Your task to perform on an android device: open a bookmark in the chrome app Image 0: 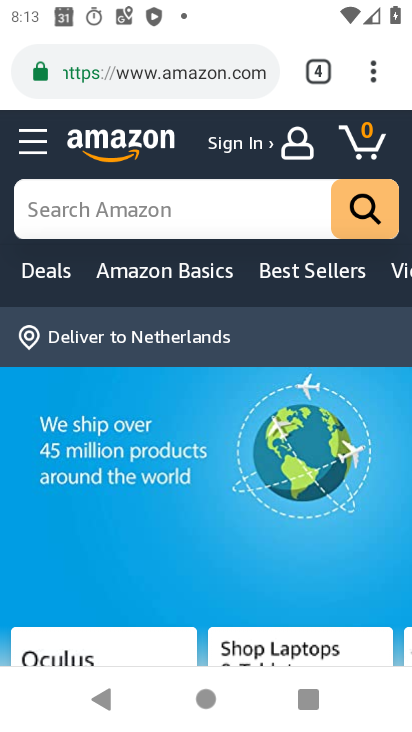
Step 0: press home button
Your task to perform on an android device: open a bookmark in the chrome app Image 1: 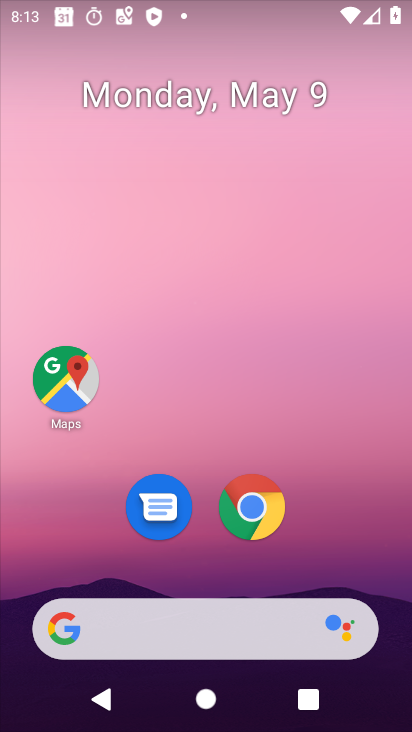
Step 1: click (254, 520)
Your task to perform on an android device: open a bookmark in the chrome app Image 2: 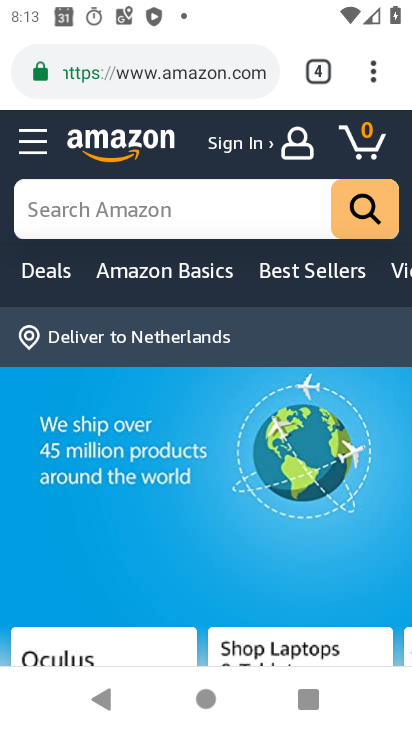
Step 2: click (375, 79)
Your task to perform on an android device: open a bookmark in the chrome app Image 3: 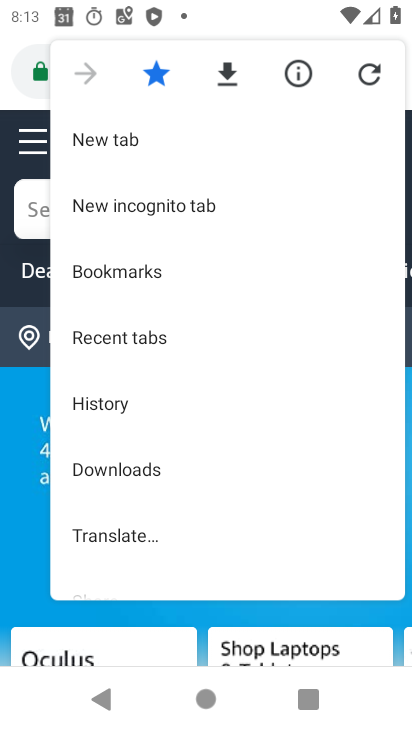
Step 3: click (170, 274)
Your task to perform on an android device: open a bookmark in the chrome app Image 4: 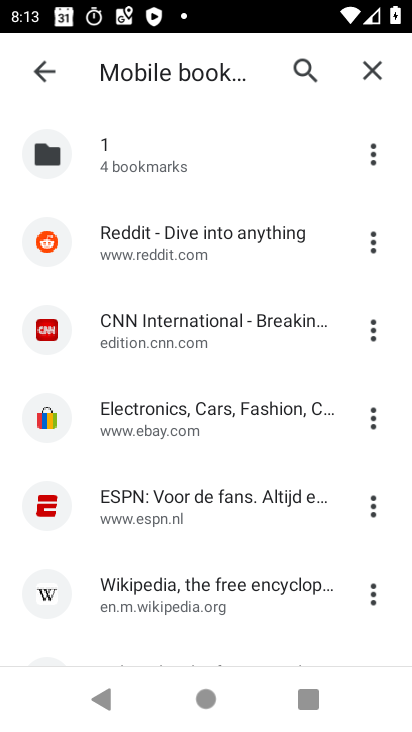
Step 4: click (154, 420)
Your task to perform on an android device: open a bookmark in the chrome app Image 5: 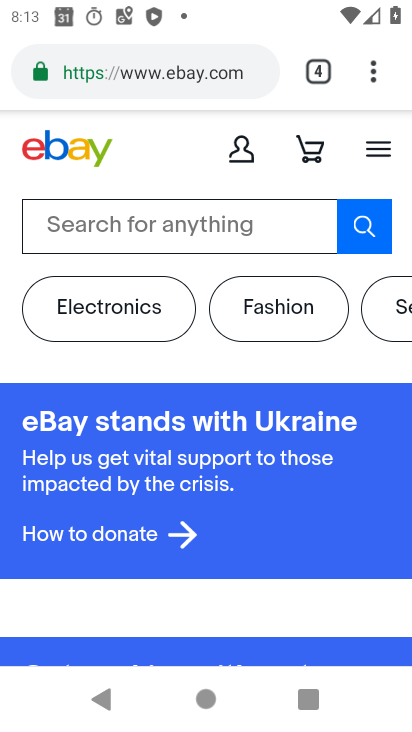
Step 5: task complete